Your task to perform on an android device: turn off notifications in google photos Image 0: 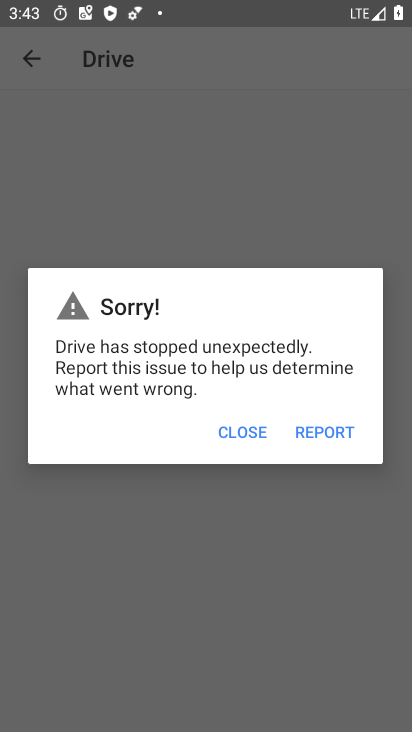
Step 0: press home button
Your task to perform on an android device: turn off notifications in google photos Image 1: 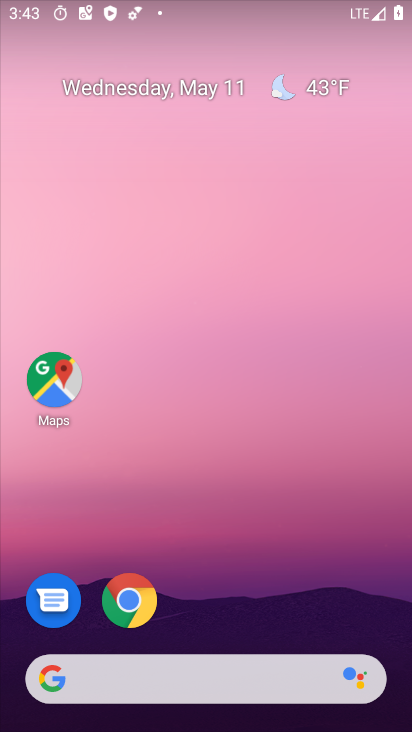
Step 1: drag from (335, 614) to (335, 11)
Your task to perform on an android device: turn off notifications in google photos Image 2: 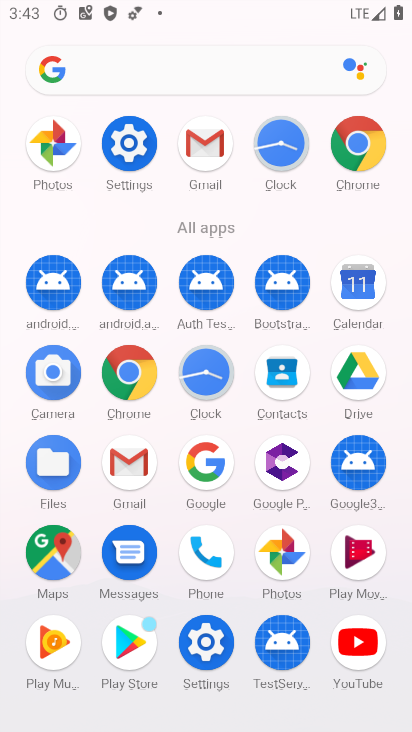
Step 2: click (273, 551)
Your task to perform on an android device: turn off notifications in google photos Image 3: 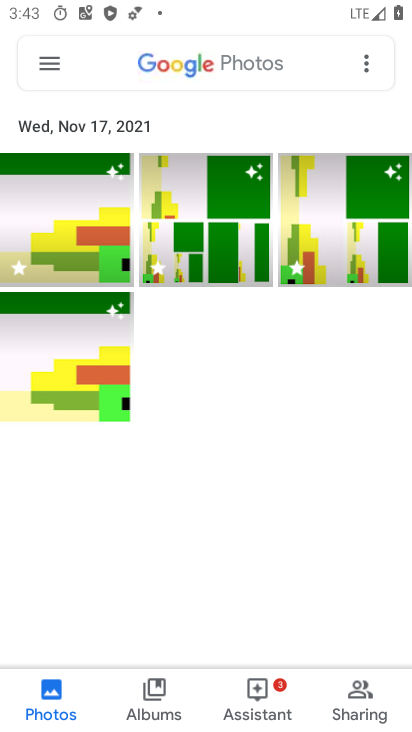
Step 3: click (46, 66)
Your task to perform on an android device: turn off notifications in google photos Image 4: 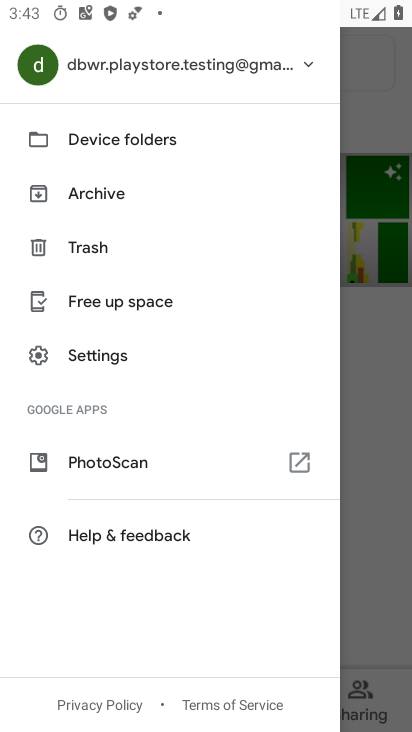
Step 4: click (96, 357)
Your task to perform on an android device: turn off notifications in google photos Image 5: 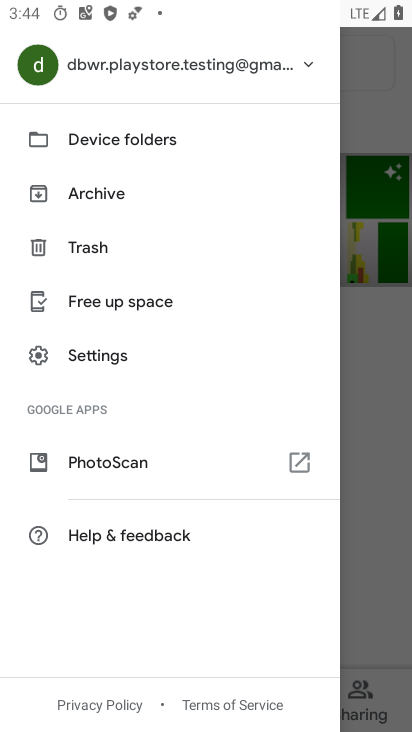
Step 5: click (98, 361)
Your task to perform on an android device: turn off notifications in google photos Image 6: 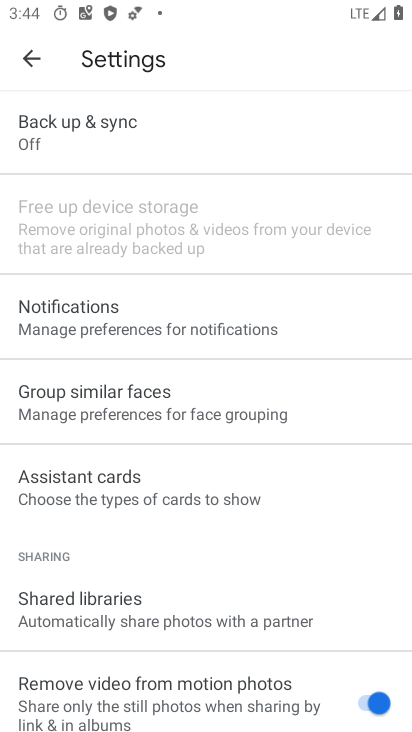
Step 6: click (55, 331)
Your task to perform on an android device: turn off notifications in google photos Image 7: 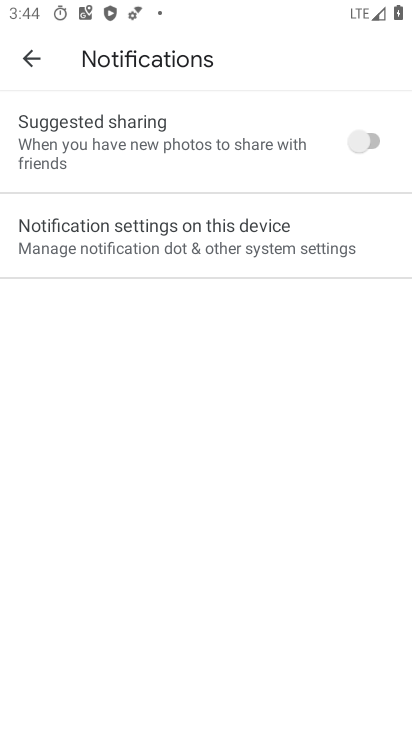
Step 7: click (131, 242)
Your task to perform on an android device: turn off notifications in google photos Image 8: 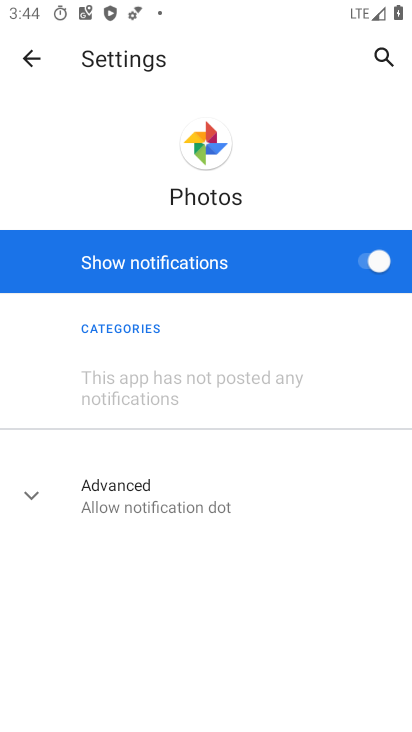
Step 8: click (389, 265)
Your task to perform on an android device: turn off notifications in google photos Image 9: 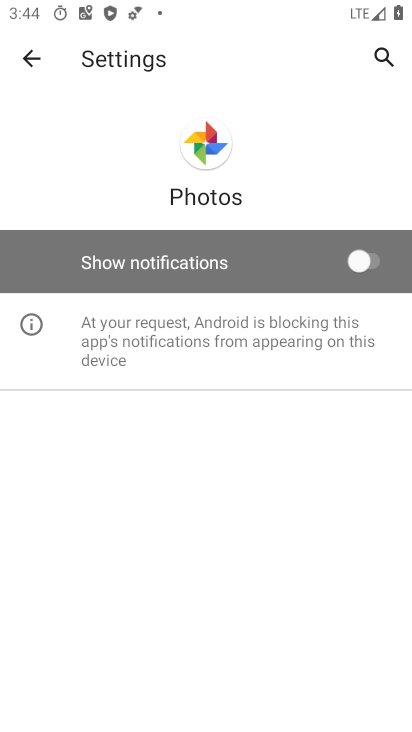
Step 9: task complete